Your task to perform on an android device: When is my next meeting? Image 0: 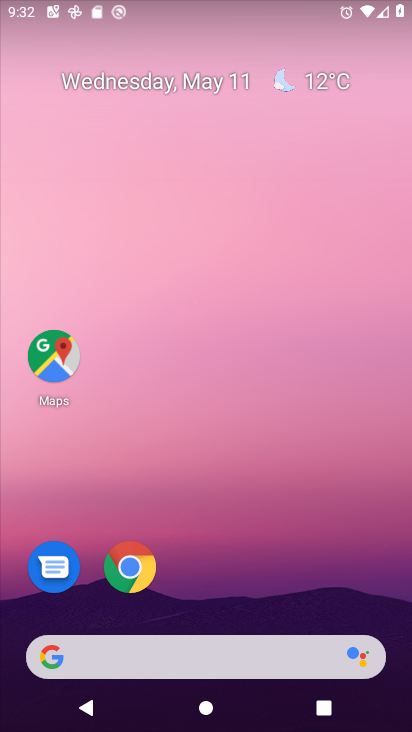
Step 0: drag from (294, 525) to (172, 22)
Your task to perform on an android device: When is my next meeting? Image 1: 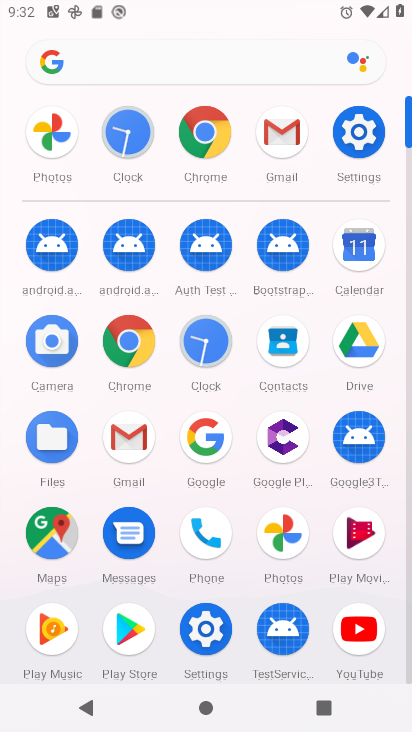
Step 1: click (364, 247)
Your task to perform on an android device: When is my next meeting? Image 2: 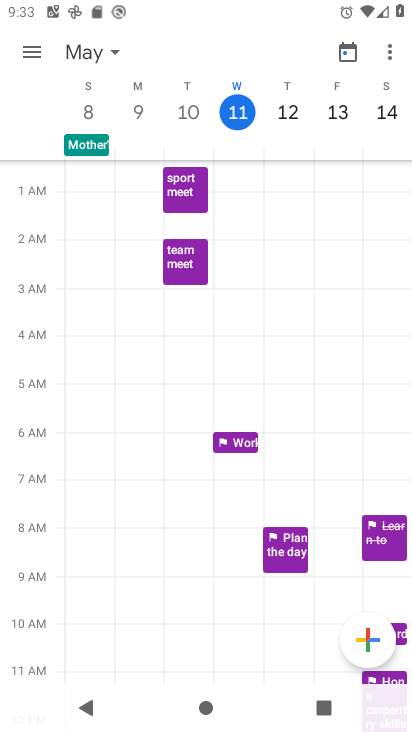
Step 2: click (100, 52)
Your task to perform on an android device: When is my next meeting? Image 3: 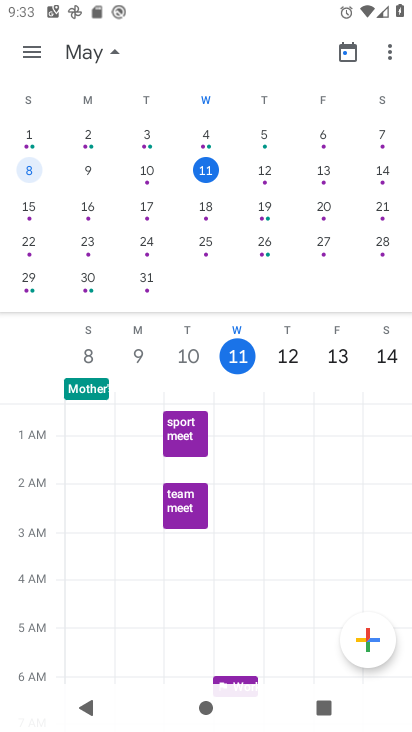
Step 3: click (101, 52)
Your task to perform on an android device: When is my next meeting? Image 4: 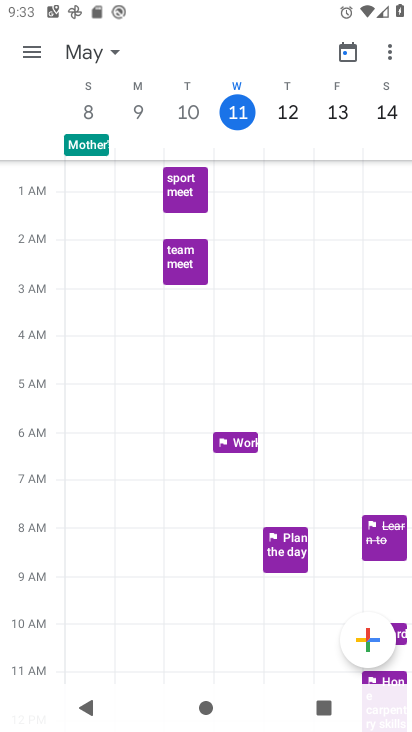
Step 4: task complete